Your task to perform on an android device: What is the recent news? Image 0: 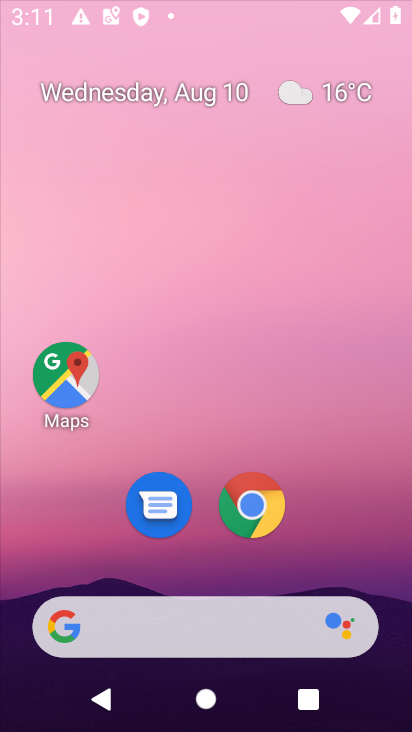
Step 0: drag from (297, 271) to (277, 77)
Your task to perform on an android device: What is the recent news? Image 1: 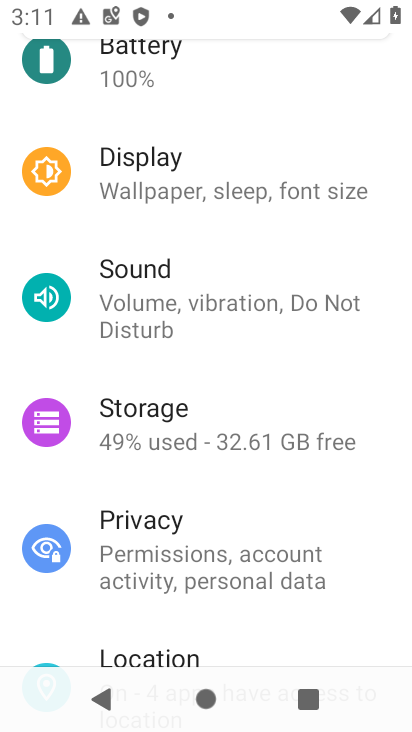
Step 1: press home button
Your task to perform on an android device: What is the recent news? Image 2: 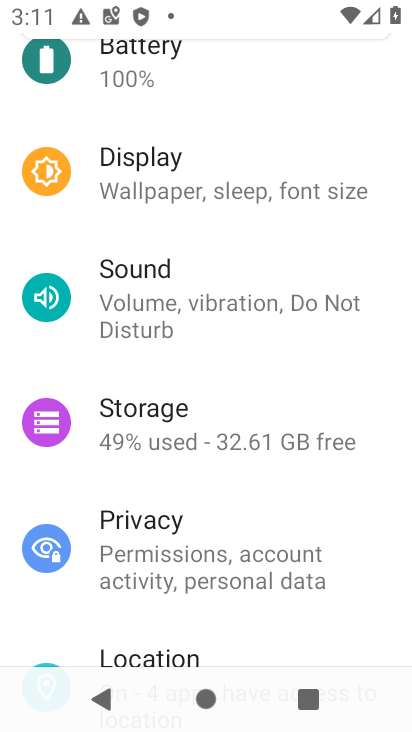
Step 2: press home button
Your task to perform on an android device: What is the recent news? Image 3: 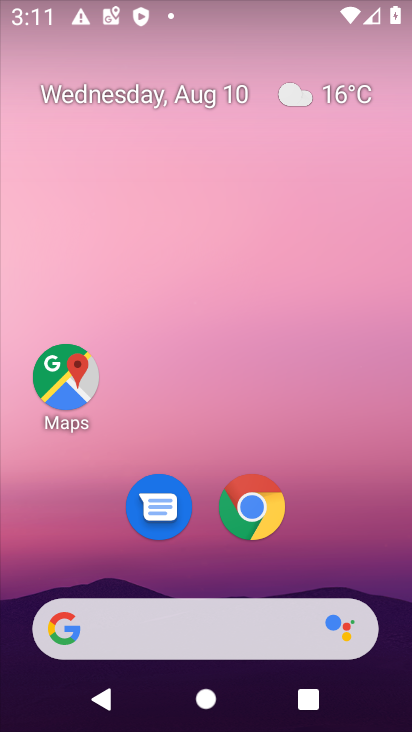
Step 3: drag from (359, 534) to (285, 60)
Your task to perform on an android device: What is the recent news? Image 4: 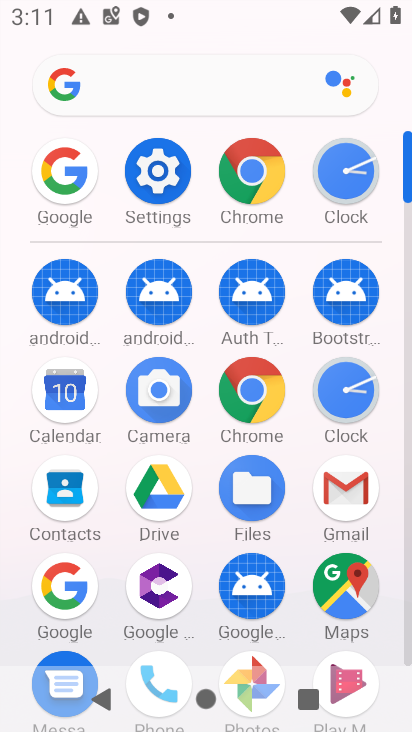
Step 4: click (250, 394)
Your task to perform on an android device: What is the recent news? Image 5: 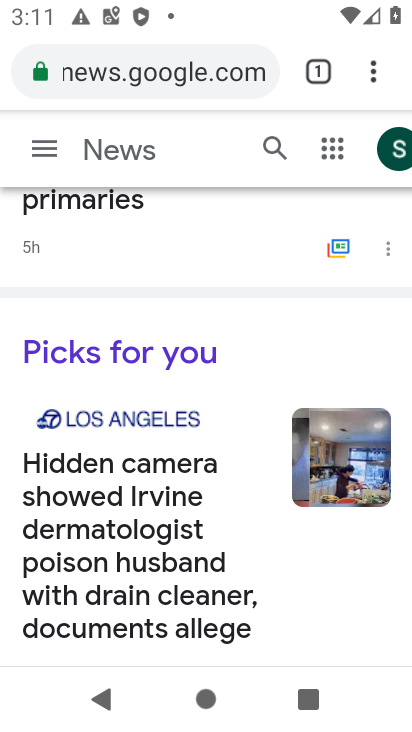
Step 5: click (240, 64)
Your task to perform on an android device: What is the recent news? Image 6: 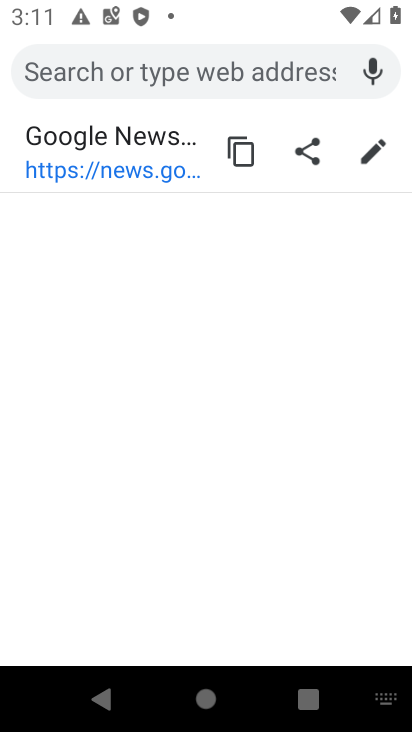
Step 6: type "news"
Your task to perform on an android device: What is the recent news? Image 7: 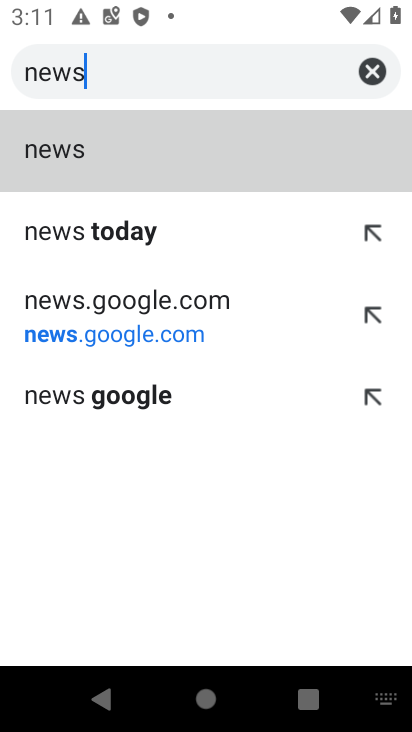
Step 7: click (96, 149)
Your task to perform on an android device: What is the recent news? Image 8: 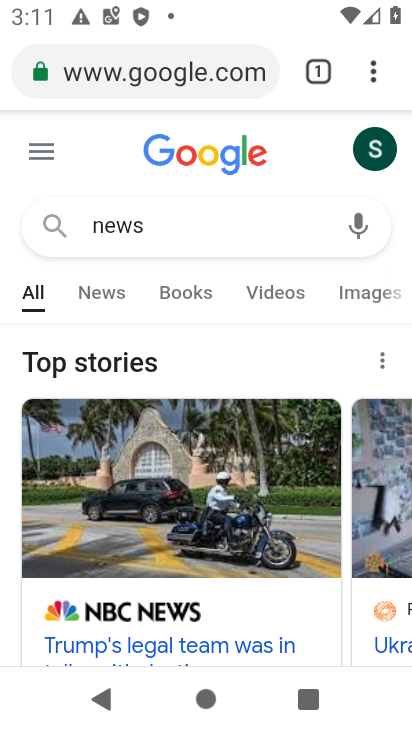
Step 8: drag from (223, 465) to (270, 24)
Your task to perform on an android device: What is the recent news? Image 9: 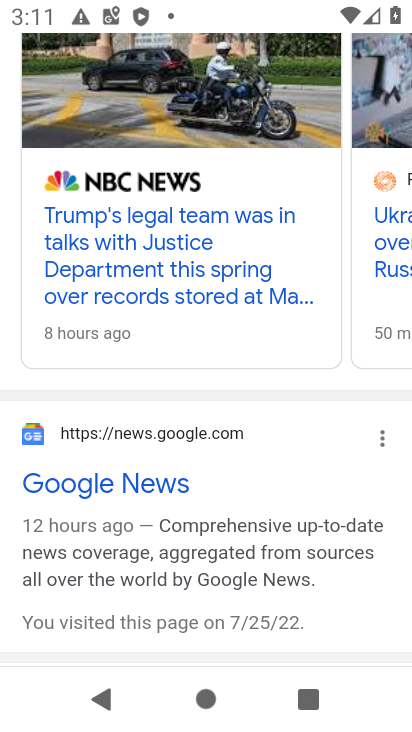
Step 9: click (134, 483)
Your task to perform on an android device: What is the recent news? Image 10: 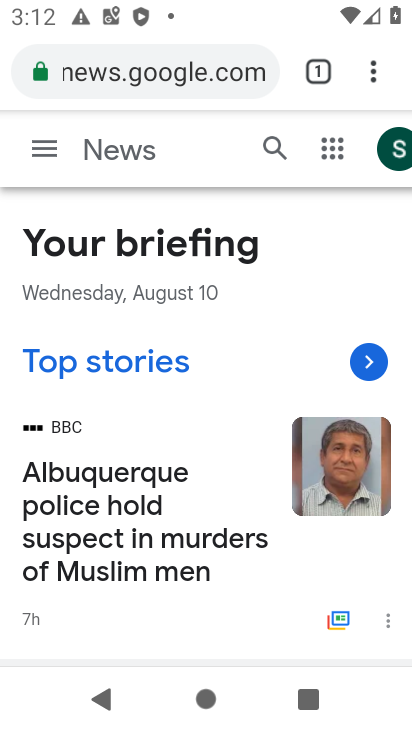
Step 10: task complete